Your task to perform on an android device: read, delete, or share a saved page in the chrome app Image 0: 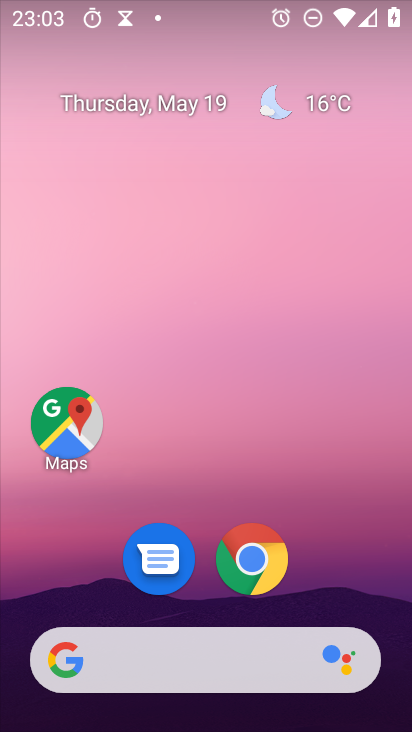
Step 0: drag from (222, 720) to (214, 172)
Your task to perform on an android device: read, delete, or share a saved page in the chrome app Image 1: 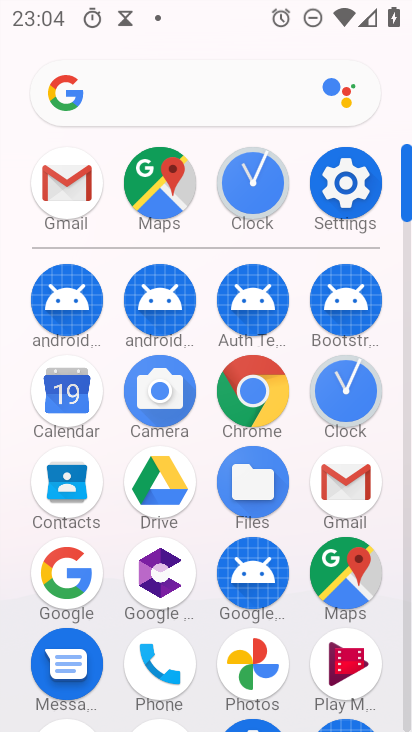
Step 1: click (253, 380)
Your task to perform on an android device: read, delete, or share a saved page in the chrome app Image 2: 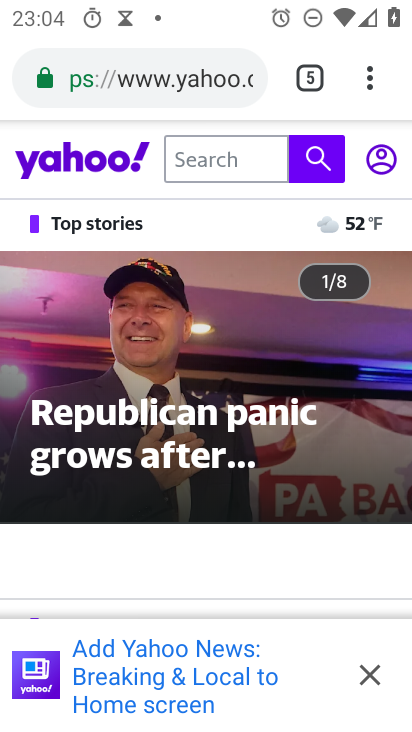
Step 2: click (369, 85)
Your task to perform on an android device: read, delete, or share a saved page in the chrome app Image 3: 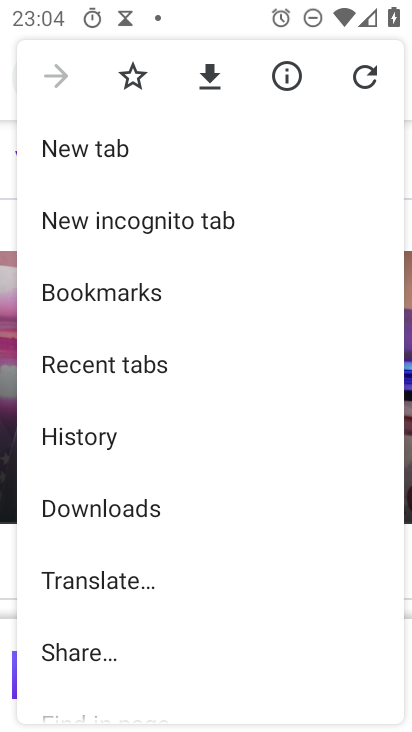
Step 3: click (88, 506)
Your task to perform on an android device: read, delete, or share a saved page in the chrome app Image 4: 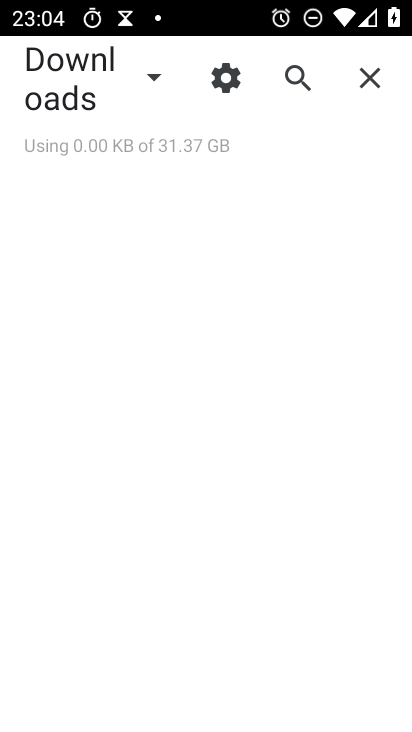
Step 4: click (154, 73)
Your task to perform on an android device: read, delete, or share a saved page in the chrome app Image 5: 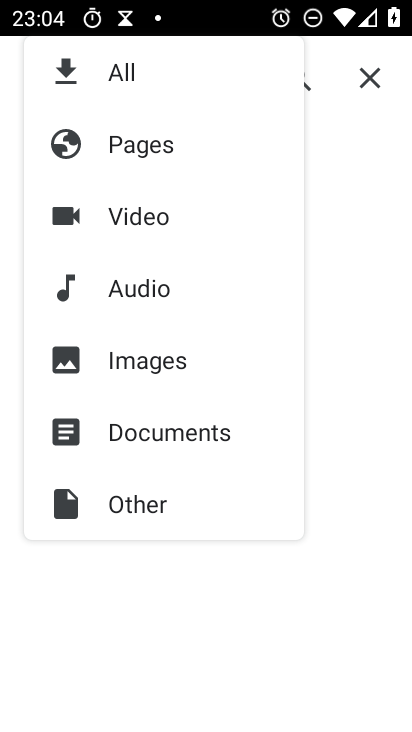
Step 5: click (134, 141)
Your task to perform on an android device: read, delete, or share a saved page in the chrome app Image 6: 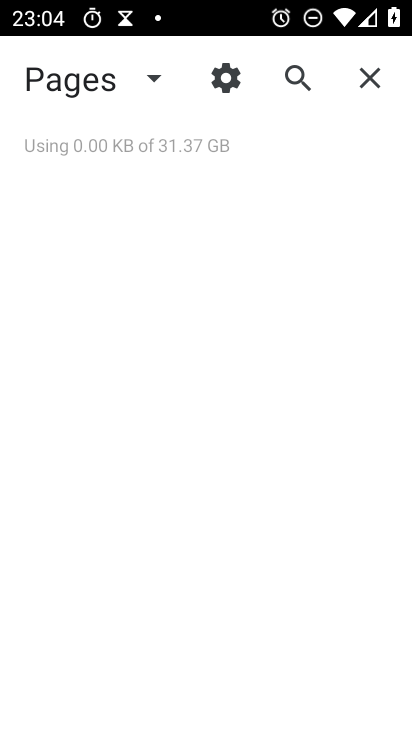
Step 6: task complete